Your task to perform on an android device: Go to accessibility settings Image 0: 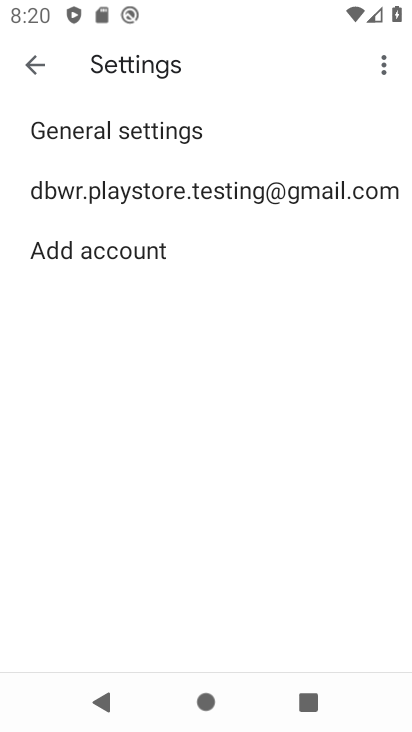
Step 0: press home button
Your task to perform on an android device: Go to accessibility settings Image 1: 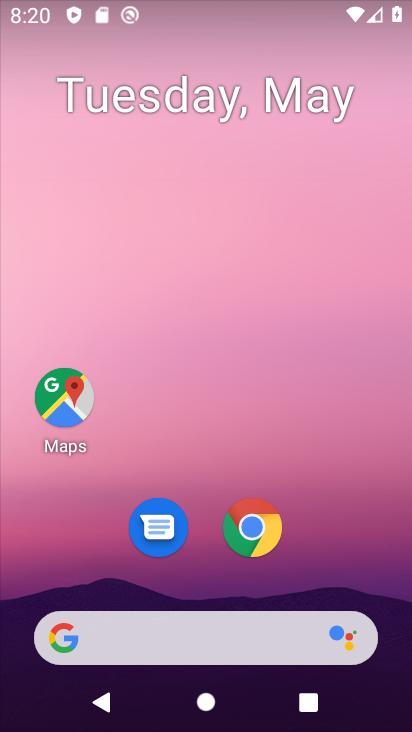
Step 1: drag from (51, 584) to (194, 114)
Your task to perform on an android device: Go to accessibility settings Image 2: 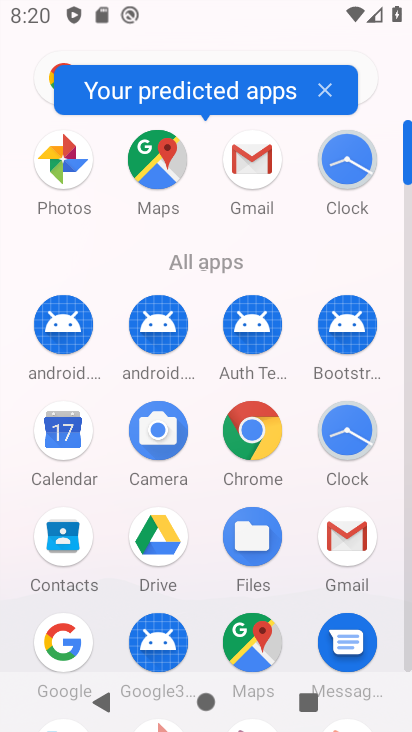
Step 2: drag from (180, 589) to (226, 321)
Your task to perform on an android device: Go to accessibility settings Image 3: 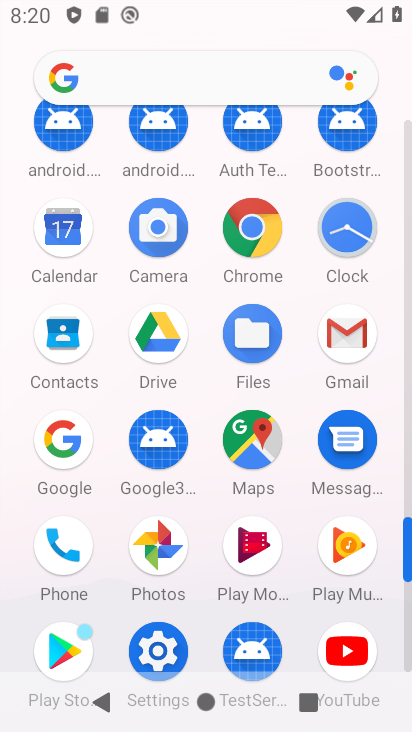
Step 3: click (164, 655)
Your task to perform on an android device: Go to accessibility settings Image 4: 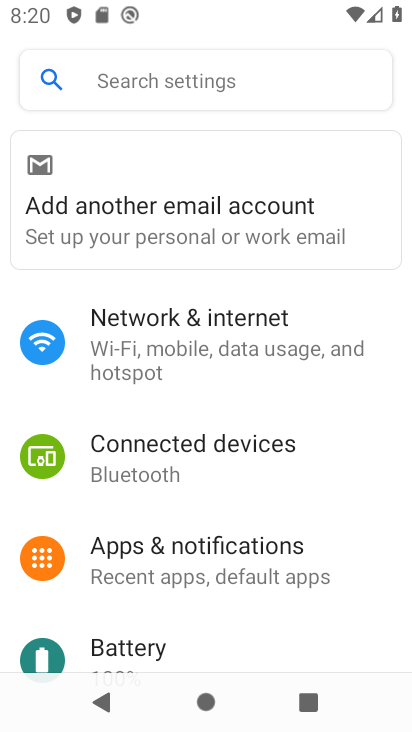
Step 4: drag from (180, 574) to (323, 117)
Your task to perform on an android device: Go to accessibility settings Image 5: 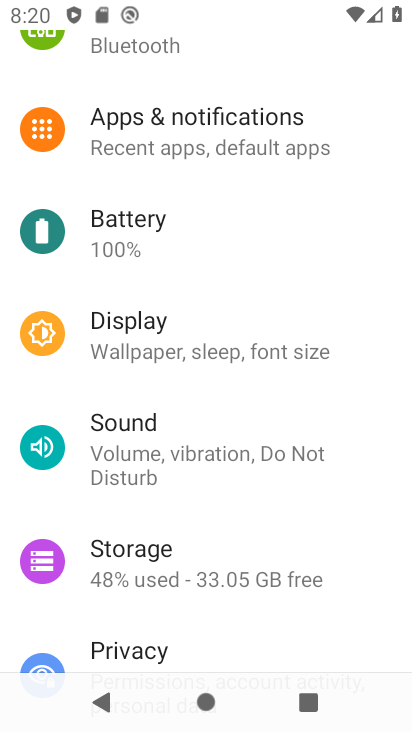
Step 5: drag from (268, 618) to (409, 204)
Your task to perform on an android device: Go to accessibility settings Image 6: 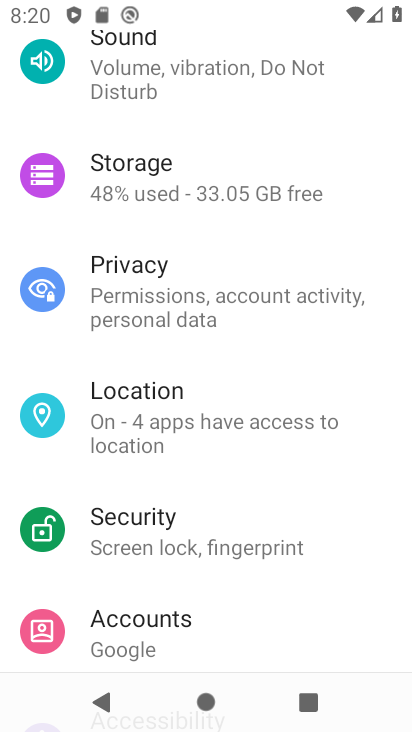
Step 6: drag from (217, 588) to (331, 144)
Your task to perform on an android device: Go to accessibility settings Image 7: 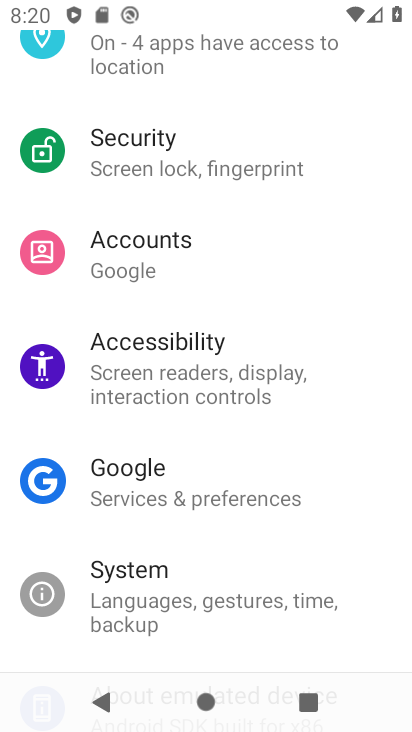
Step 7: click (187, 369)
Your task to perform on an android device: Go to accessibility settings Image 8: 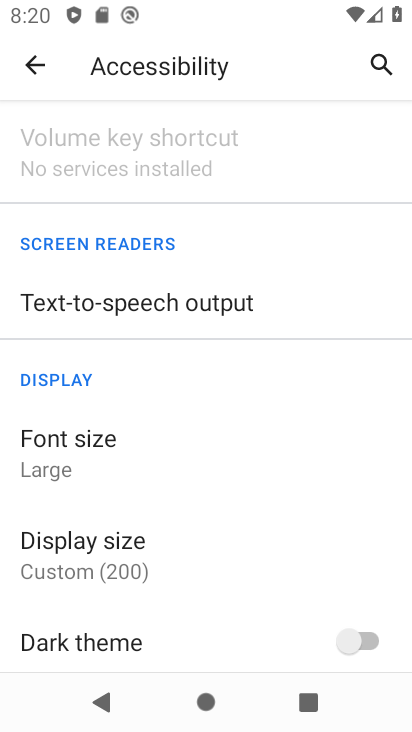
Step 8: task complete